Your task to perform on an android device: toggle pop-ups in chrome Image 0: 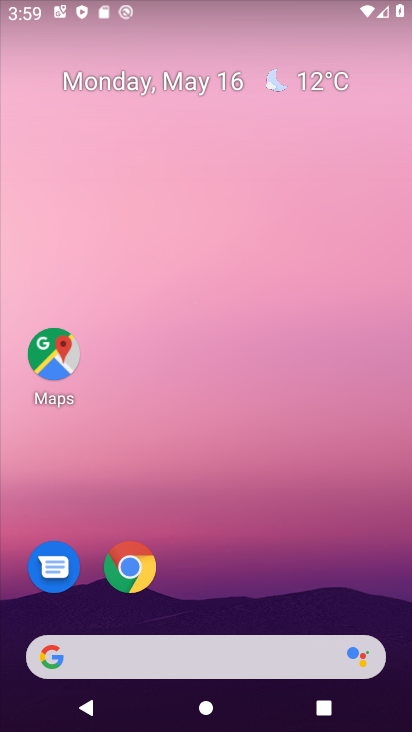
Step 0: drag from (276, 524) to (251, 61)
Your task to perform on an android device: toggle pop-ups in chrome Image 1: 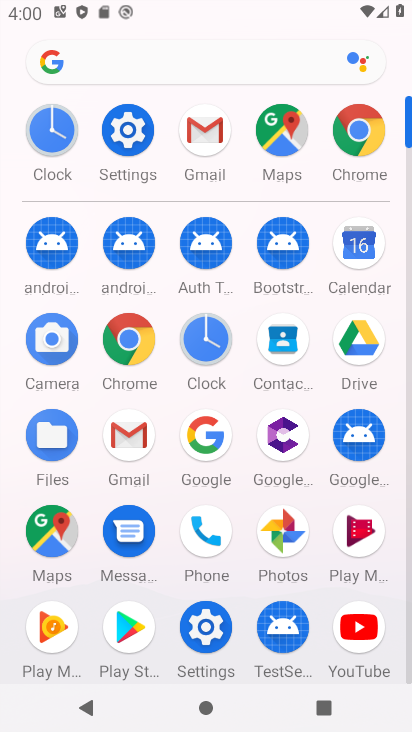
Step 1: click (355, 121)
Your task to perform on an android device: toggle pop-ups in chrome Image 2: 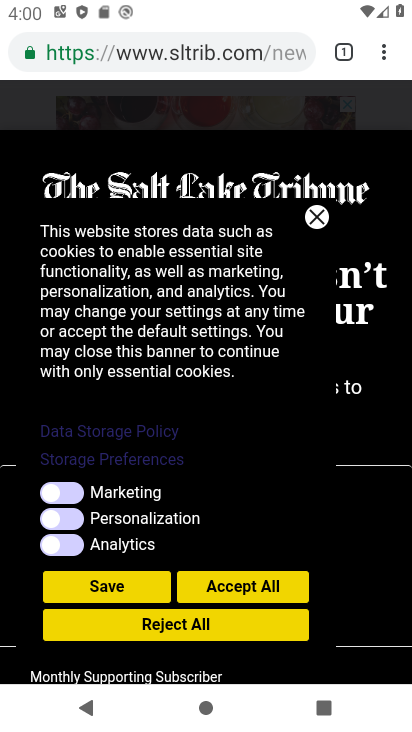
Step 2: drag from (384, 53) to (224, 613)
Your task to perform on an android device: toggle pop-ups in chrome Image 3: 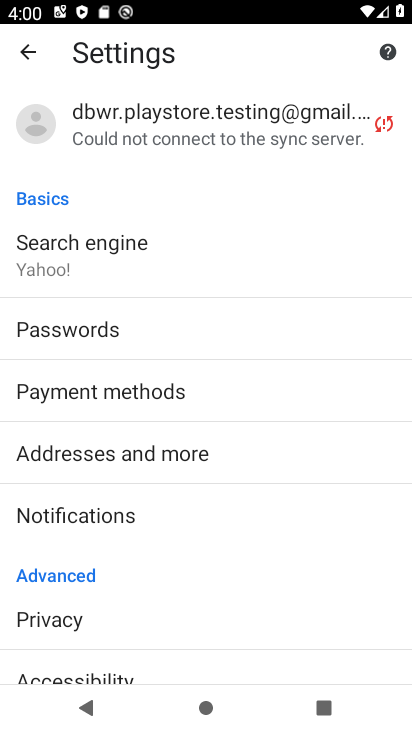
Step 3: drag from (234, 553) to (258, 207)
Your task to perform on an android device: toggle pop-ups in chrome Image 4: 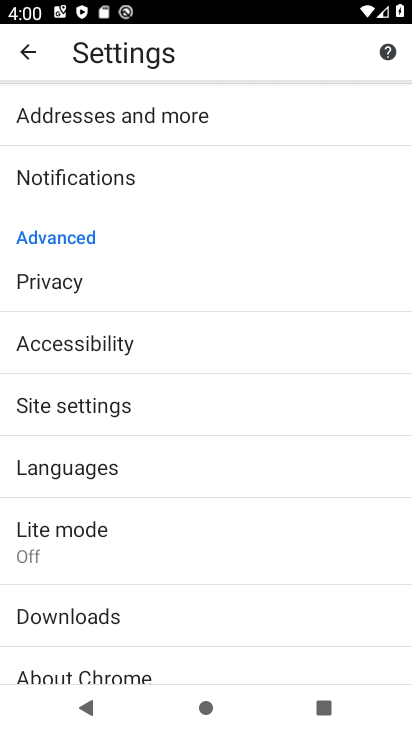
Step 4: drag from (202, 564) to (223, 178)
Your task to perform on an android device: toggle pop-ups in chrome Image 5: 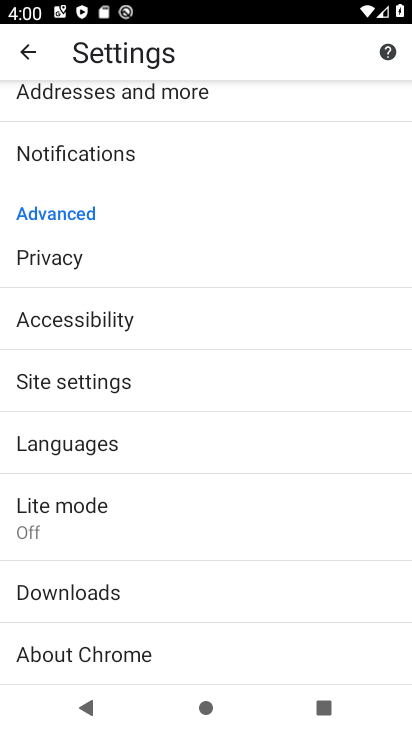
Step 5: drag from (219, 161) to (224, 573)
Your task to perform on an android device: toggle pop-ups in chrome Image 6: 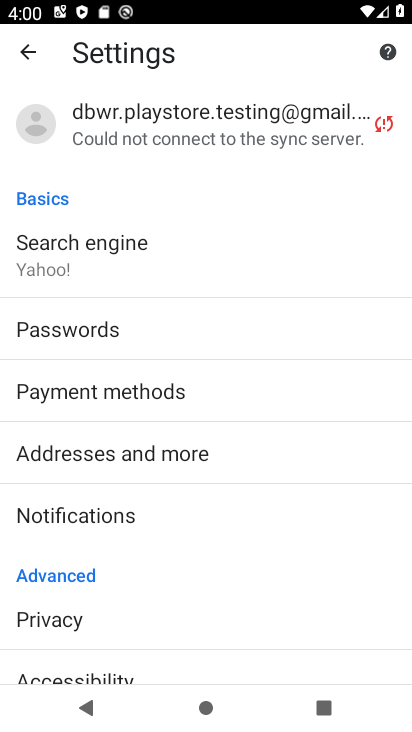
Step 6: drag from (225, 637) to (283, 132)
Your task to perform on an android device: toggle pop-ups in chrome Image 7: 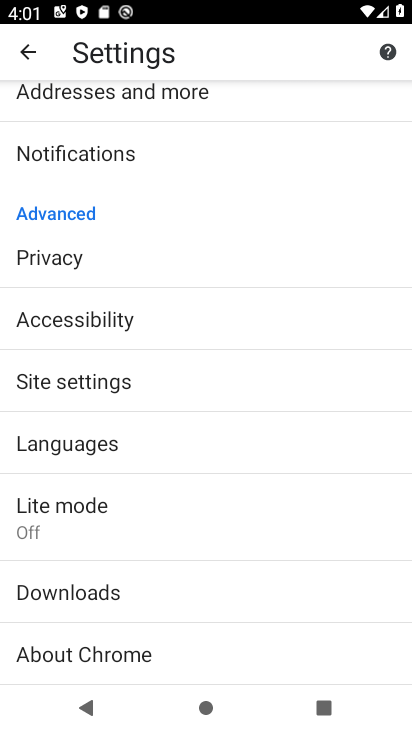
Step 7: click (78, 381)
Your task to perform on an android device: toggle pop-ups in chrome Image 8: 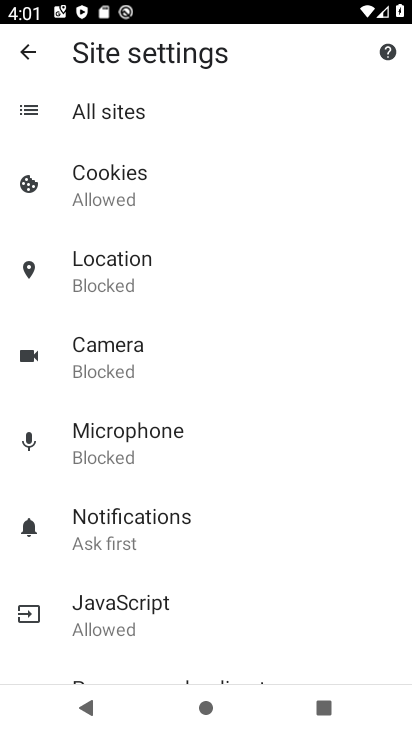
Step 8: drag from (215, 572) to (245, 134)
Your task to perform on an android device: toggle pop-ups in chrome Image 9: 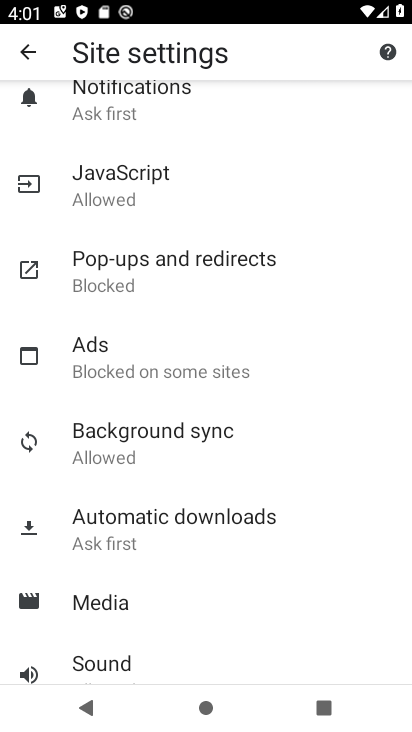
Step 9: click (165, 254)
Your task to perform on an android device: toggle pop-ups in chrome Image 10: 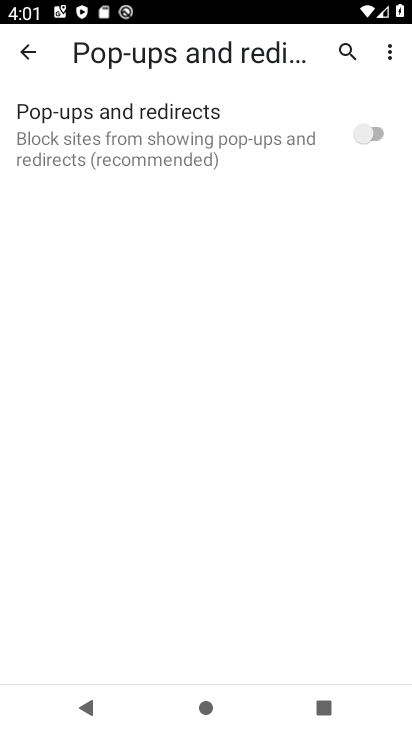
Step 10: click (380, 117)
Your task to perform on an android device: toggle pop-ups in chrome Image 11: 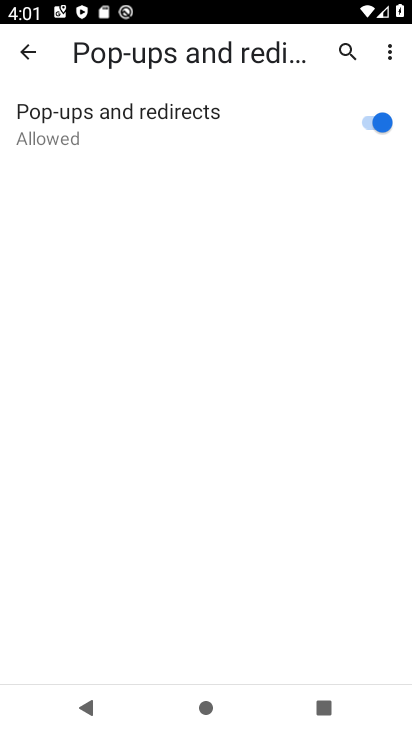
Step 11: task complete